Your task to perform on an android device: Open Google Maps and go to "Timeline" Image 0: 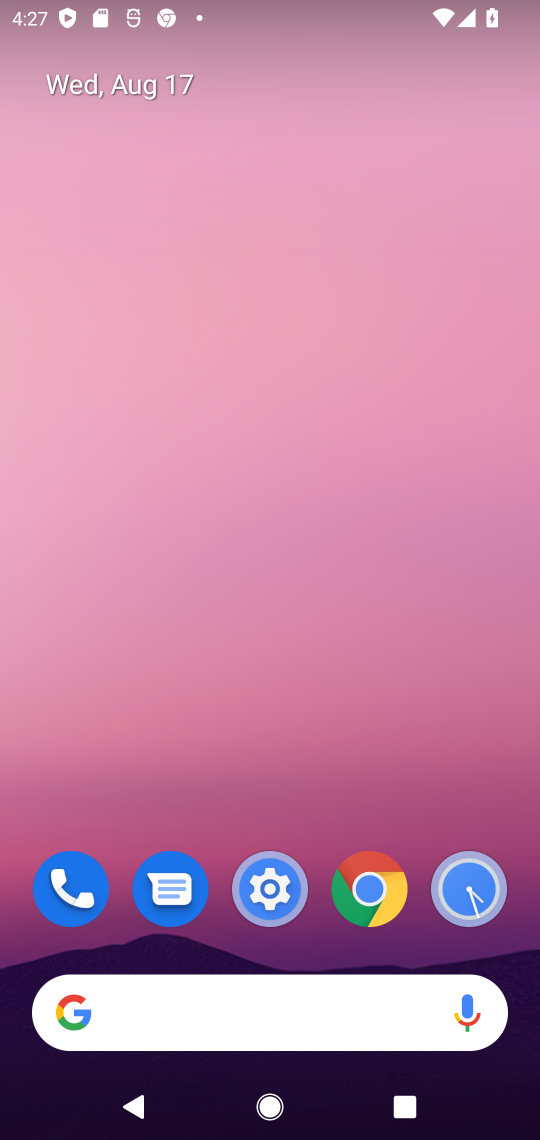
Step 0: drag from (334, 797) to (335, 22)
Your task to perform on an android device: Open Google Maps and go to "Timeline" Image 1: 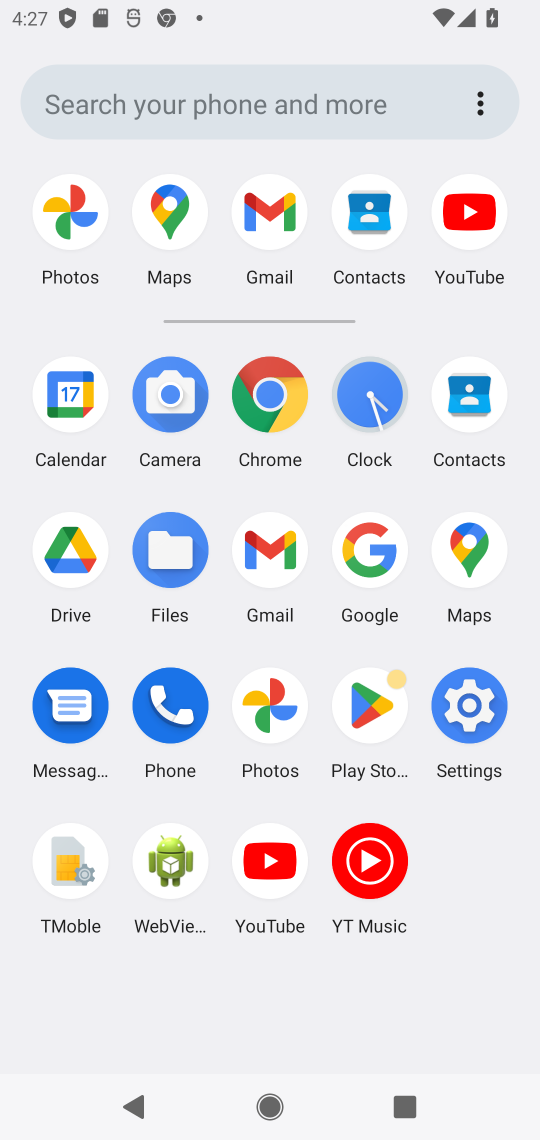
Step 1: click (475, 541)
Your task to perform on an android device: Open Google Maps and go to "Timeline" Image 2: 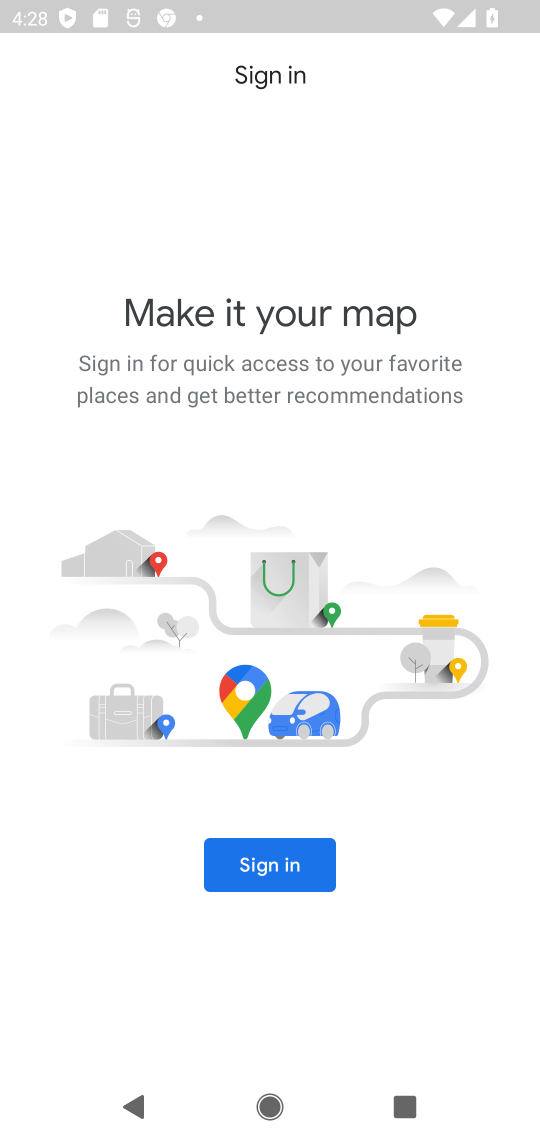
Step 2: task complete